Your task to perform on an android device: manage bookmarks in the chrome app Image 0: 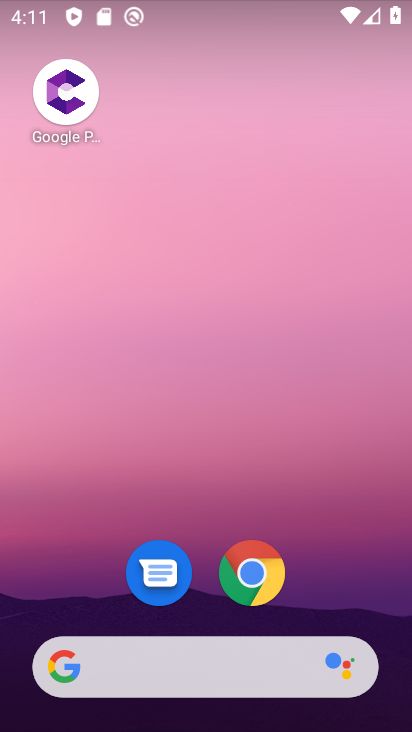
Step 0: click (251, 576)
Your task to perform on an android device: manage bookmarks in the chrome app Image 1: 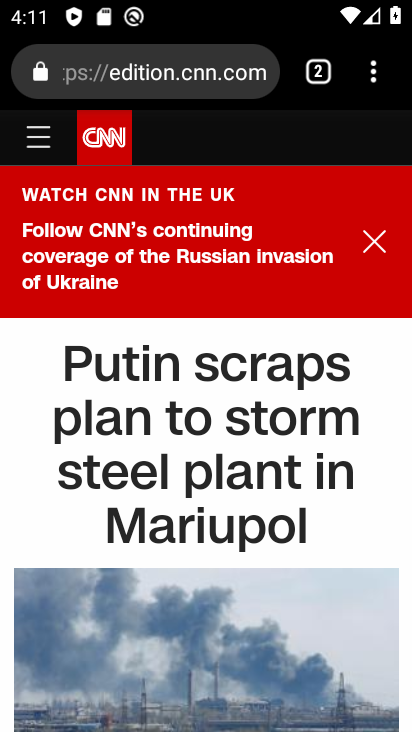
Step 1: click (372, 71)
Your task to perform on an android device: manage bookmarks in the chrome app Image 2: 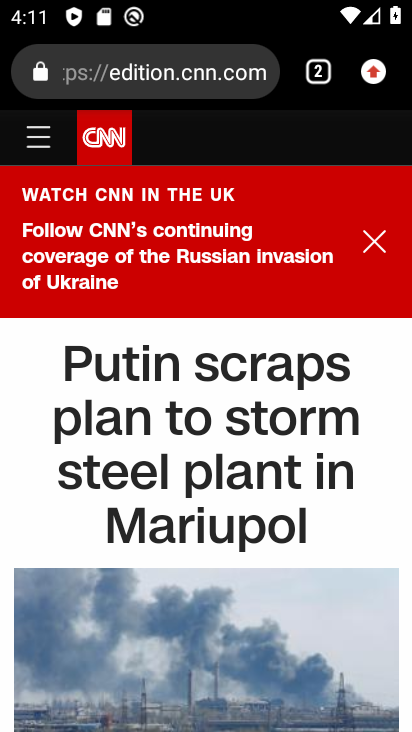
Step 2: click (372, 71)
Your task to perform on an android device: manage bookmarks in the chrome app Image 3: 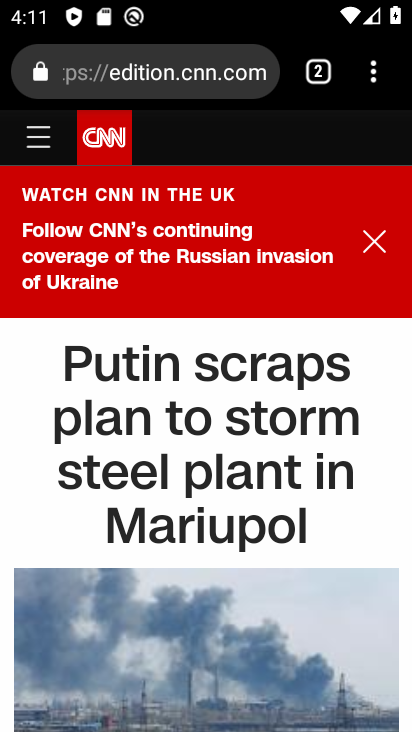
Step 3: click (374, 76)
Your task to perform on an android device: manage bookmarks in the chrome app Image 4: 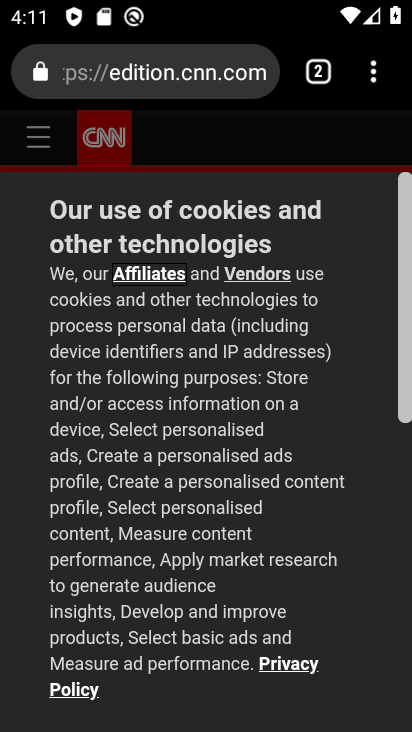
Step 4: click (371, 75)
Your task to perform on an android device: manage bookmarks in the chrome app Image 5: 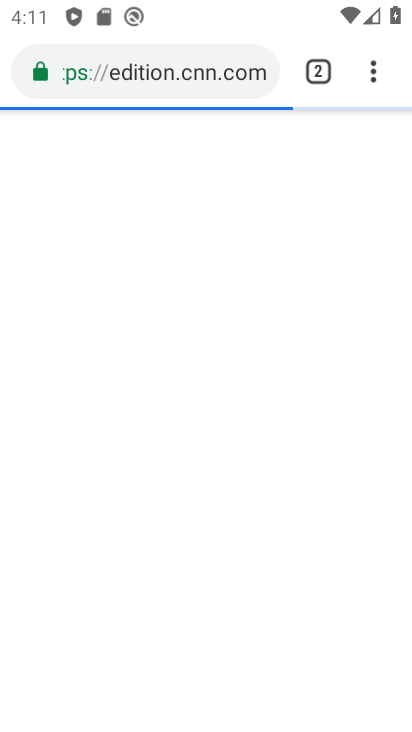
Step 5: click (371, 75)
Your task to perform on an android device: manage bookmarks in the chrome app Image 6: 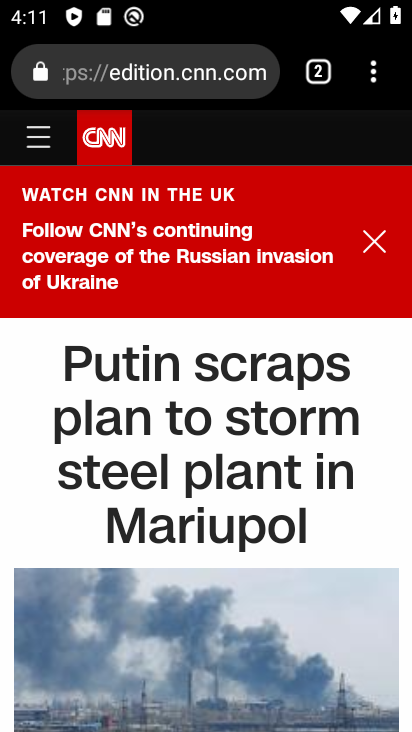
Step 6: click (371, 75)
Your task to perform on an android device: manage bookmarks in the chrome app Image 7: 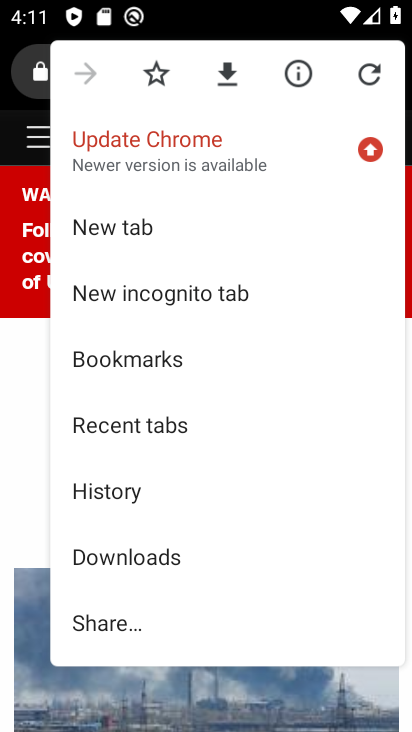
Step 7: click (105, 367)
Your task to perform on an android device: manage bookmarks in the chrome app Image 8: 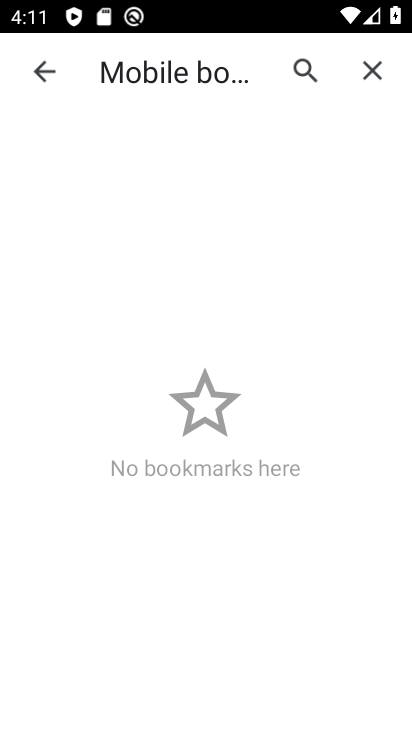
Step 8: task complete